Your task to perform on an android device: Go to display settings Image 0: 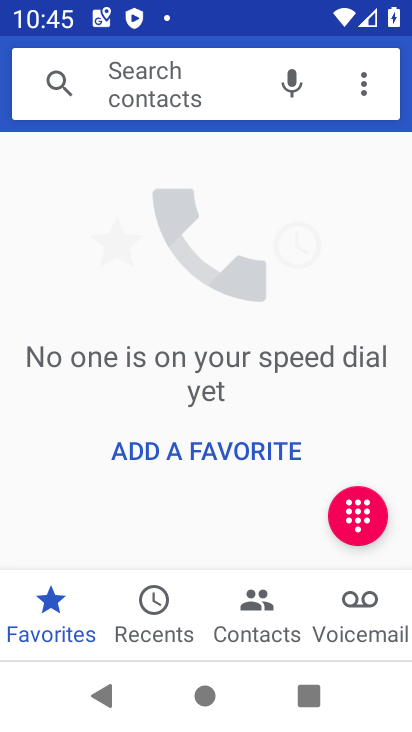
Step 0: press home button
Your task to perform on an android device: Go to display settings Image 1: 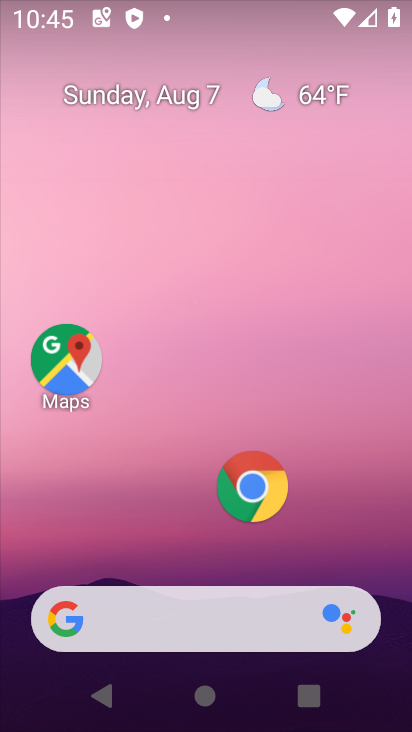
Step 1: drag from (155, 695) to (279, 123)
Your task to perform on an android device: Go to display settings Image 2: 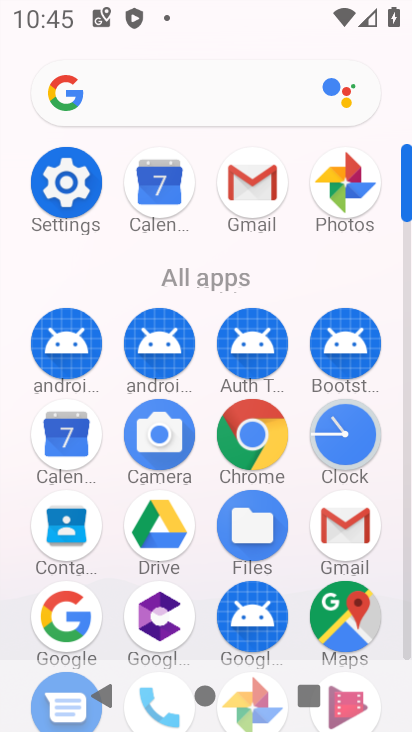
Step 2: click (61, 203)
Your task to perform on an android device: Go to display settings Image 3: 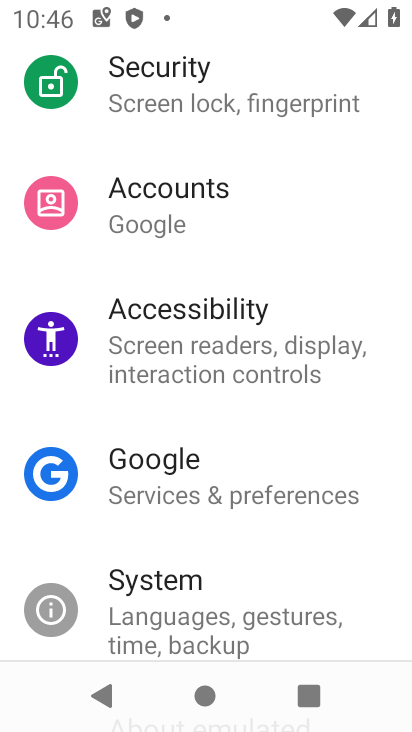
Step 3: drag from (286, 175) to (281, 563)
Your task to perform on an android device: Go to display settings Image 4: 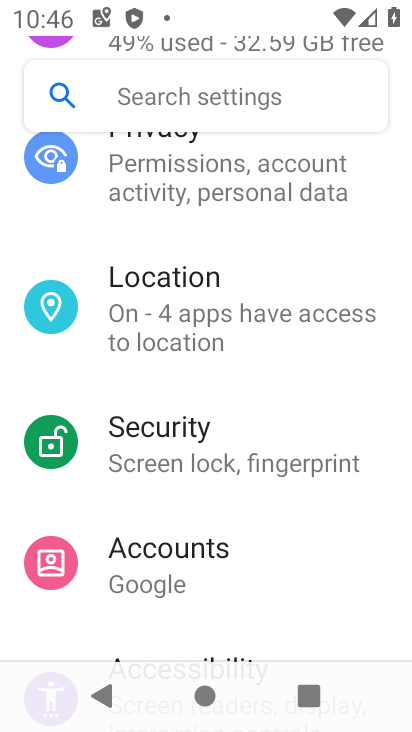
Step 4: drag from (330, 282) to (311, 723)
Your task to perform on an android device: Go to display settings Image 5: 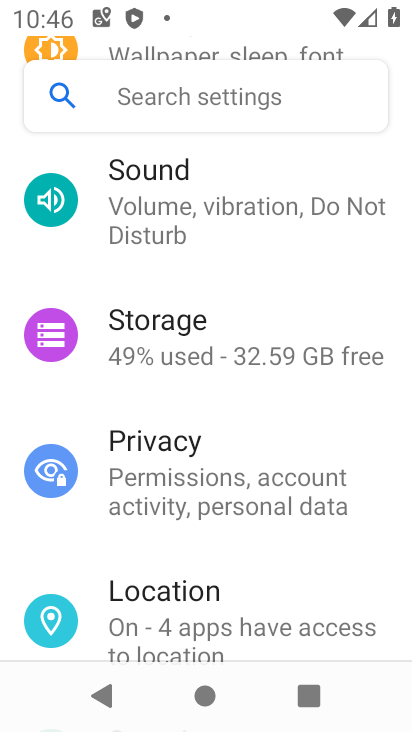
Step 5: drag from (324, 167) to (318, 653)
Your task to perform on an android device: Go to display settings Image 6: 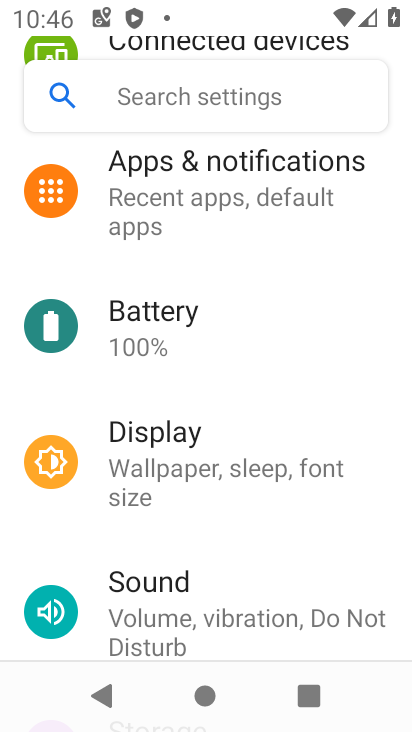
Step 6: click (242, 466)
Your task to perform on an android device: Go to display settings Image 7: 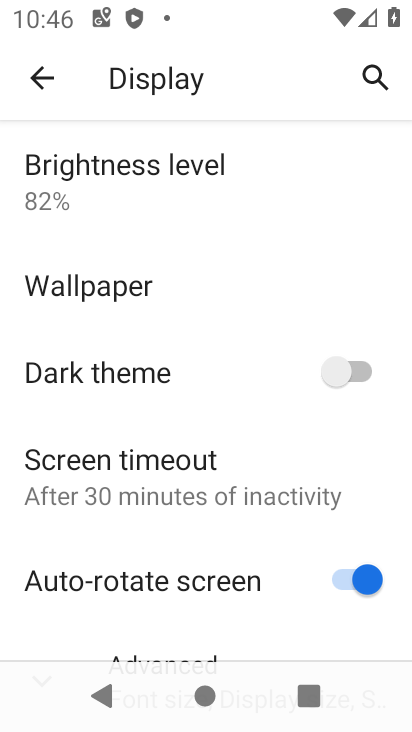
Step 7: task complete